Your task to perform on an android device: Open the map Image 0: 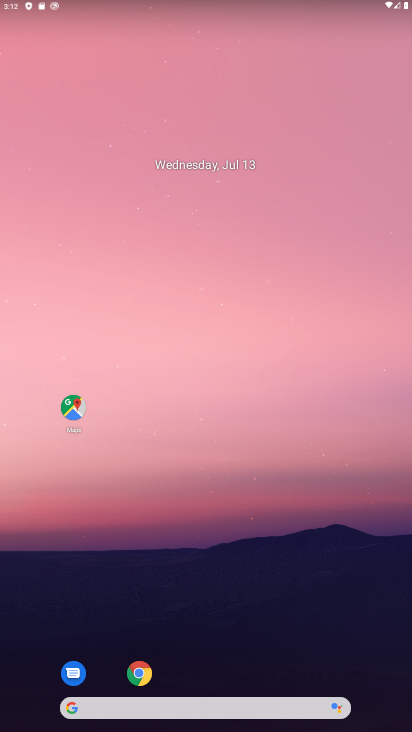
Step 0: drag from (222, 730) to (221, 50)
Your task to perform on an android device: Open the map Image 1: 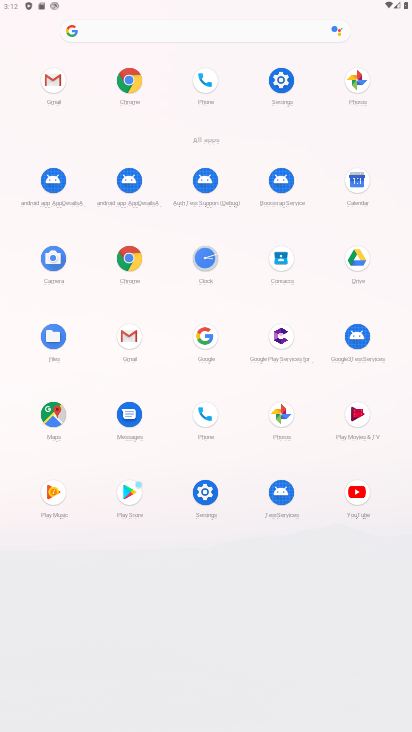
Step 1: click (51, 418)
Your task to perform on an android device: Open the map Image 2: 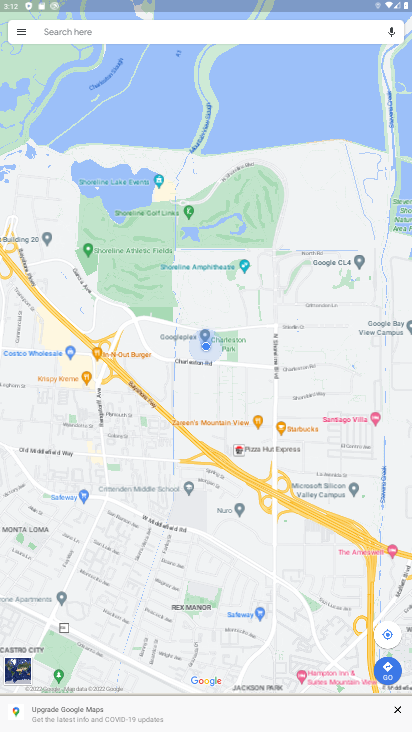
Step 2: task complete